Your task to perform on an android device: turn off priority inbox in the gmail app Image 0: 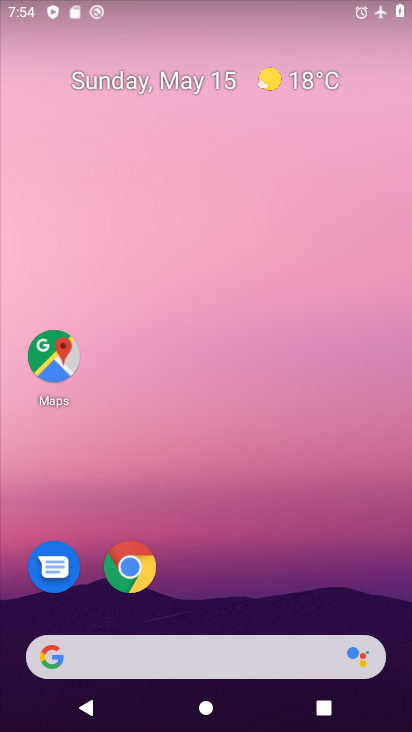
Step 0: drag from (132, 700) to (389, 381)
Your task to perform on an android device: turn off priority inbox in the gmail app Image 1: 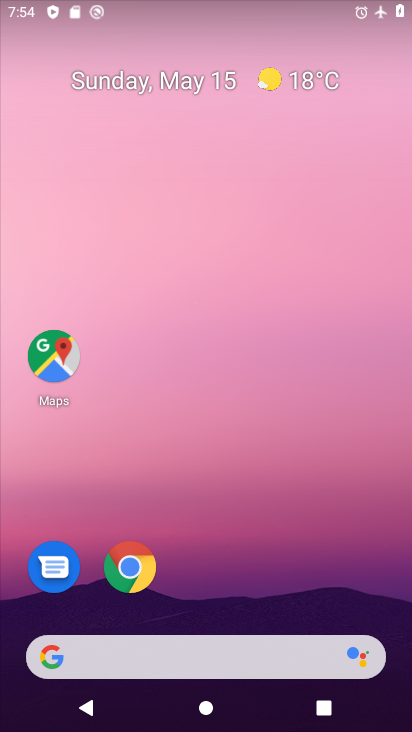
Step 1: drag from (134, 700) to (328, 130)
Your task to perform on an android device: turn off priority inbox in the gmail app Image 2: 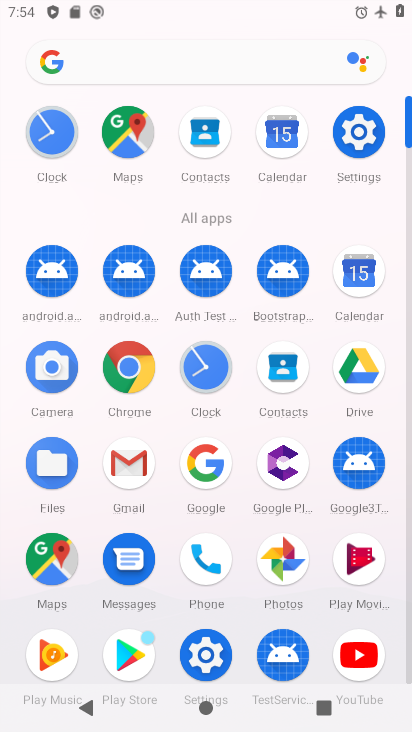
Step 2: click (124, 483)
Your task to perform on an android device: turn off priority inbox in the gmail app Image 3: 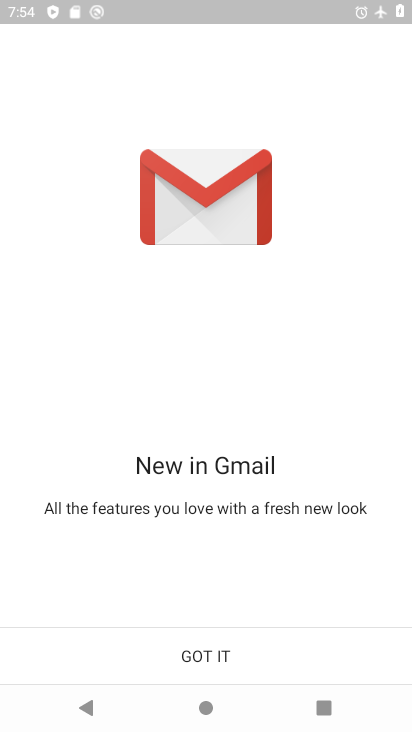
Step 3: click (192, 652)
Your task to perform on an android device: turn off priority inbox in the gmail app Image 4: 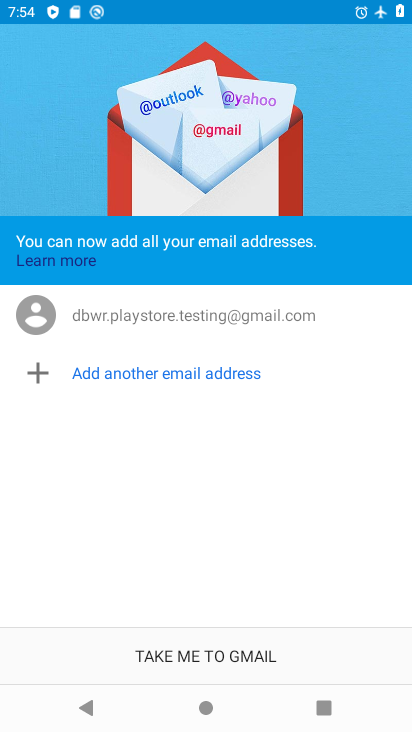
Step 4: click (192, 652)
Your task to perform on an android device: turn off priority inbox in the gmail app Image 5: 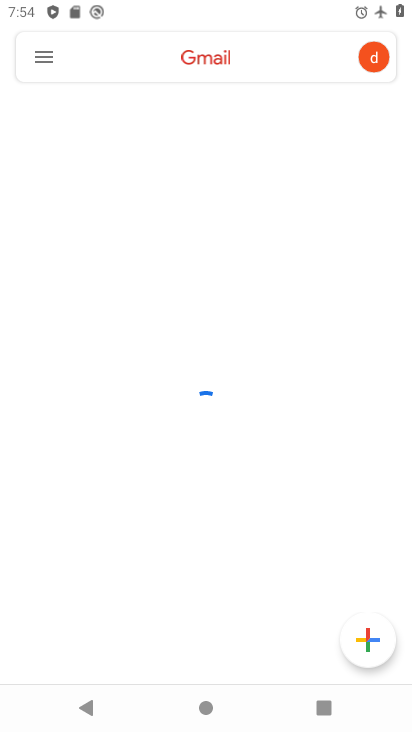
Step 5: click (57, 61)
Your task to perform on an android device: turn off priority inbox in the gmail app Image 6: 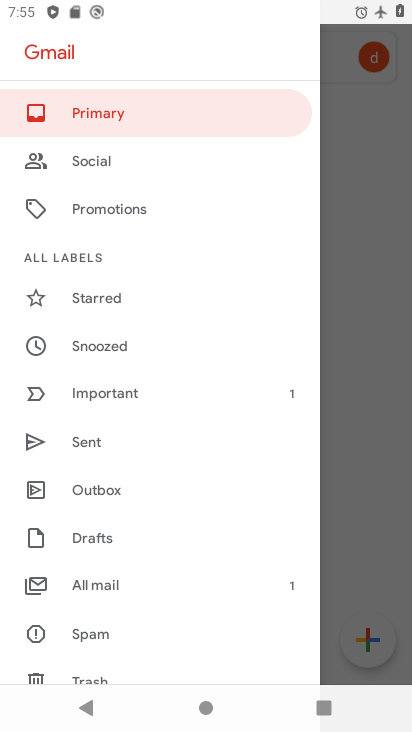
Step 6: drag from (151, 659) to (390, 345)
Your task to perform on an android device: turn off priority inbox in the gmail app Image 7: 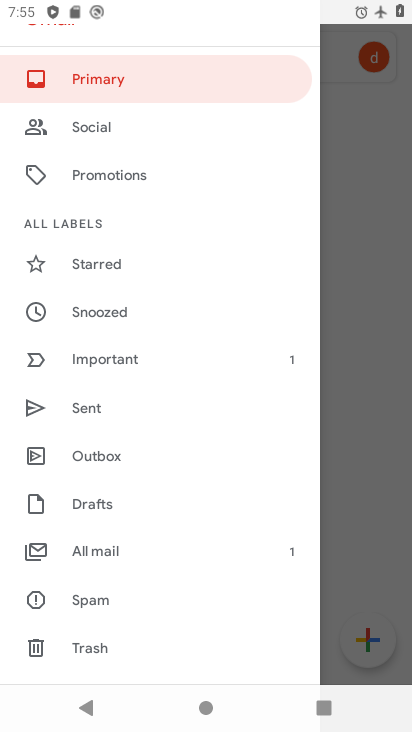
Step 7: drag from (158, 643) to (377, 4)
Your task to perform on an android device: turn off priority inbox in the gmail app Image 8: 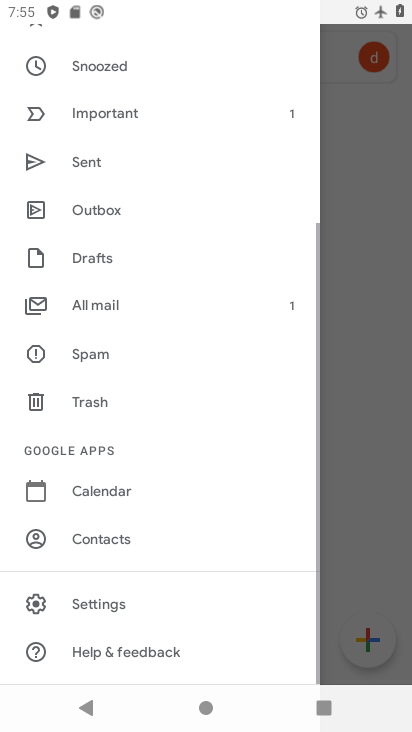
Step 8: click (68, 610)
Your task to perform on an android device: turn off priority inbox in the gmail app Image 9: 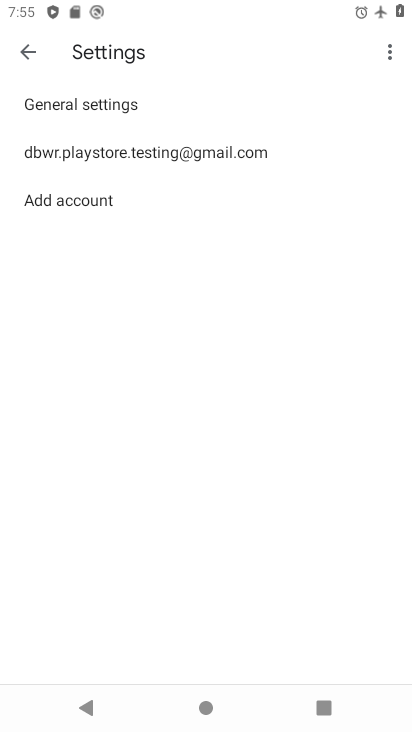
Step 9: click (124, 153)
Your task to perform on an android device: turn off priority inbox in the gmail app Image 10: 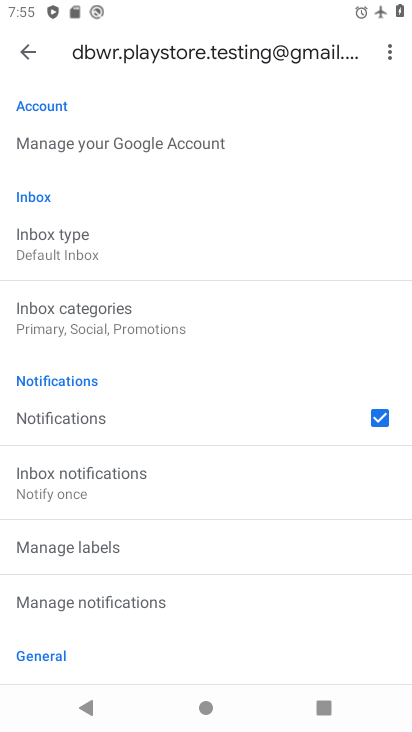
Step 10: click (75, 242)
Your task to perform on an android device: turn off priority inbox in the gmail app Image 11: 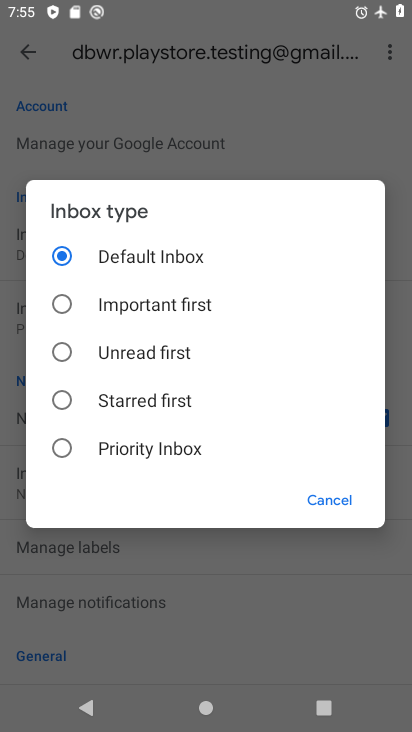
Step 11: task complete